Your task to perform on an android device: turn on notifications settings in the gmail app Image 0: 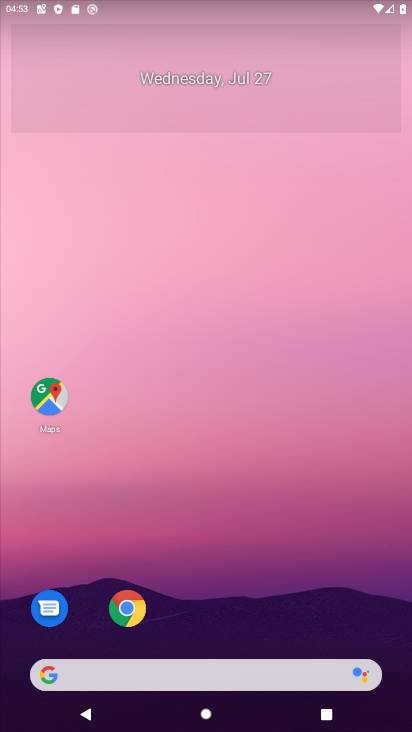
Step 0: press home button
Your task to perform on an android device: turn on notifications settings in the gmail app Image 1: 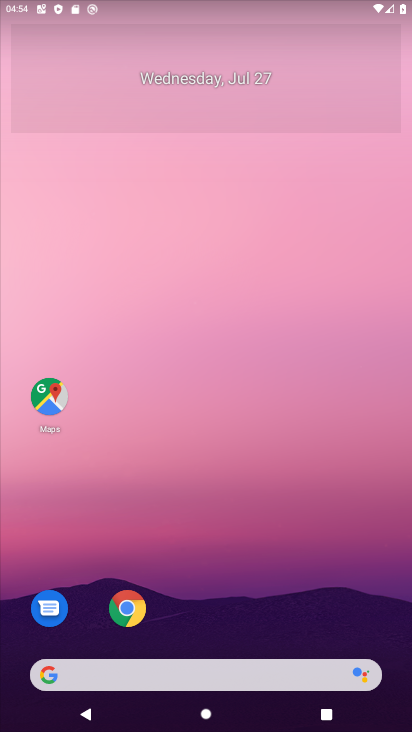
Step 1: click (195, 642)
Your task to perform on an android device: turn on notifications settings in the gmail app Image 2: 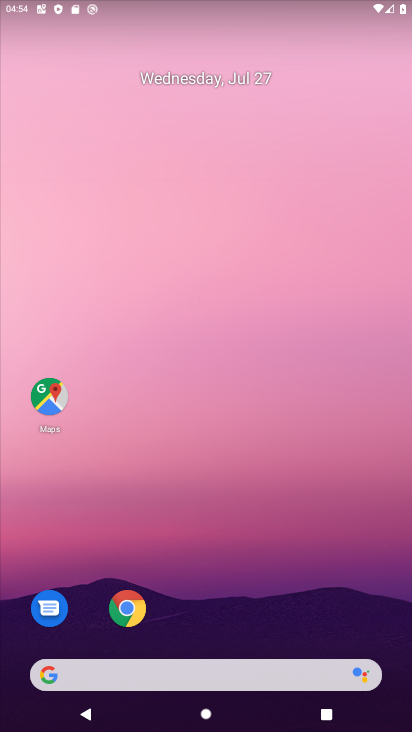
Step 2: drag from (216, 619) to (195, 540)
Your task to perform on an android device: turn on notifications settings in the gmail app Image 3: 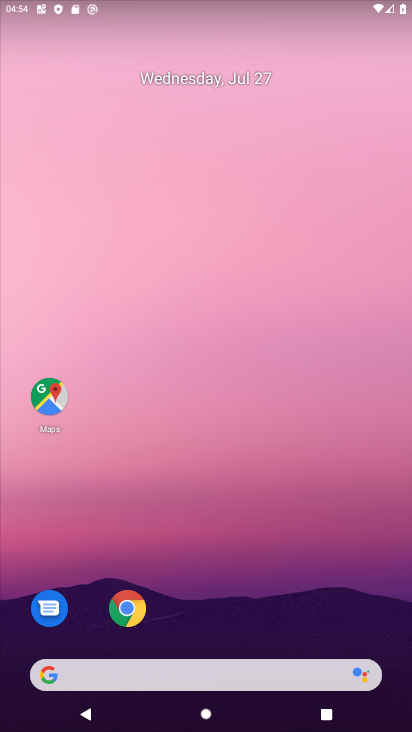
Step 3: drag from (247, 642) to (142, 276)
Your task to perform on an android device: turn on notifications settings in the gmail app Image 4: 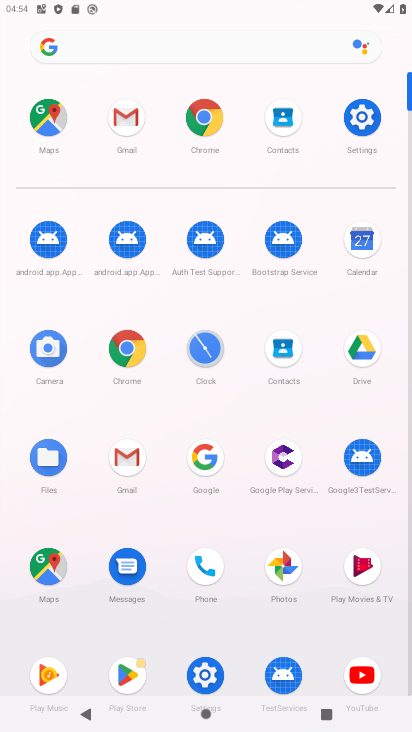
Step 4: click (134, 115)
Your task to perform on an android device: turn on notifications settings in the gmail app Image 5: 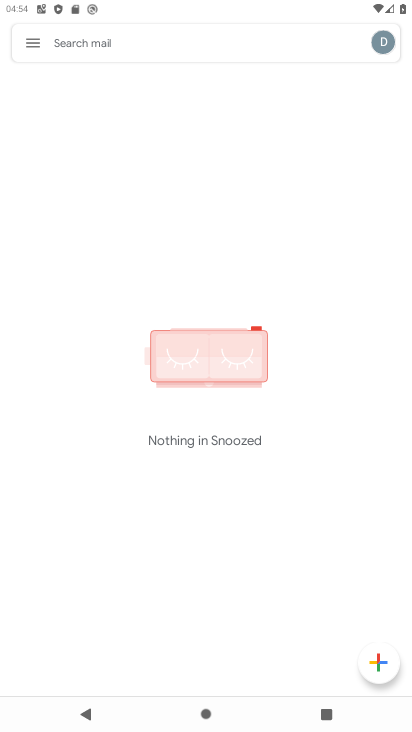
Step 5: click (28, 31)
Your task to perform on an android device: turn on notifications settings in the gmail app Image 6: 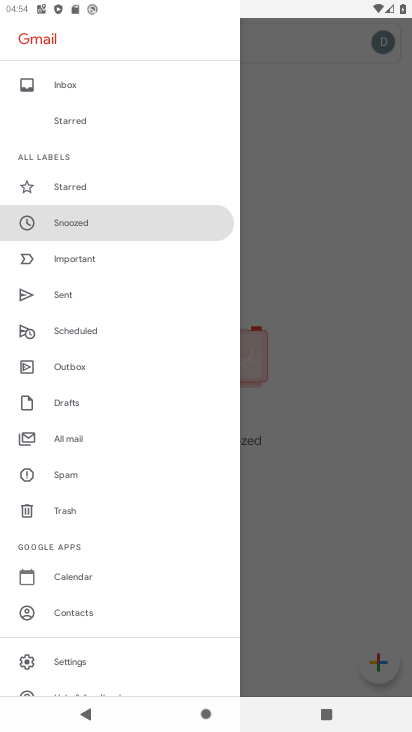
Step 6: click (76, 665)
Your task to perform on an android device: turn on notifications settings in the gmail app Image 7: 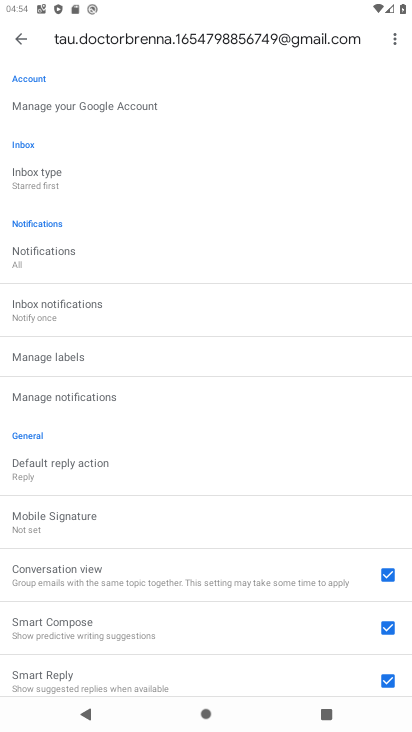
Step 7: click (62, 401)
Your task to perform on an android device: turn on notifications settings in the gmail app Image 8: 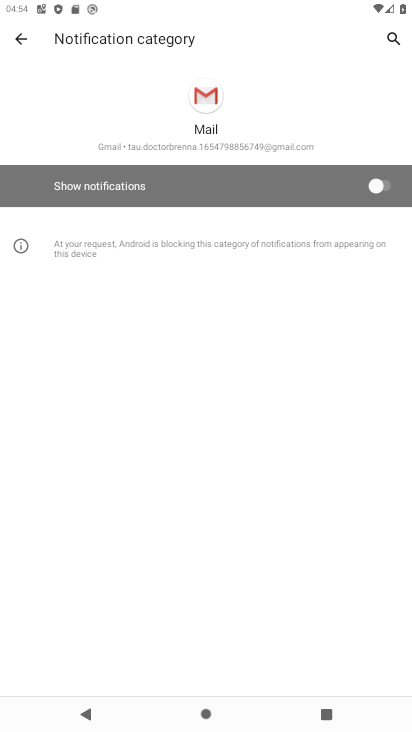
Step 8: click (375, 186)
Your task to perform on an android device: turn on notifications settings in the gmail app Image 9: 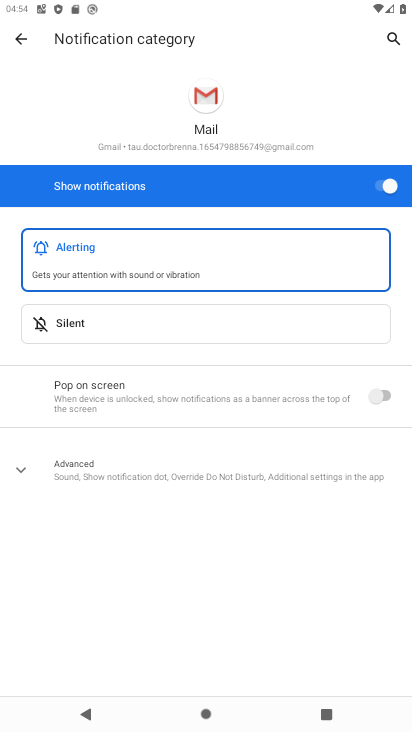
Step 9: task complete